Your task to perform on an android device: Open the phone app and click the voicemail tab. Image 0: 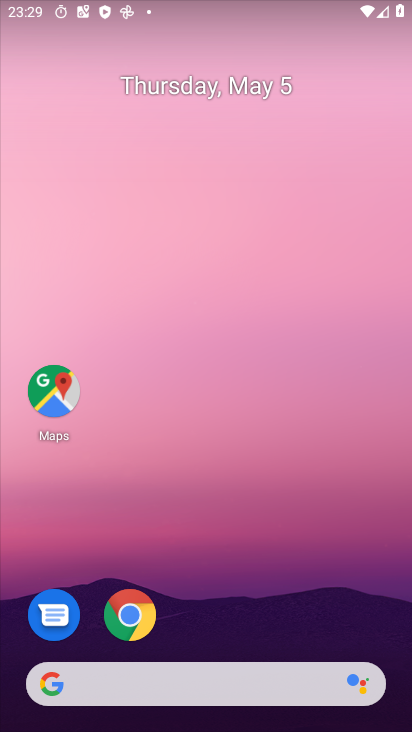
Step 0: drag from (218, 614) to (183, 153)
Your task to perform on an android device: Open the phone app and click the voicemail tab. Image 1: 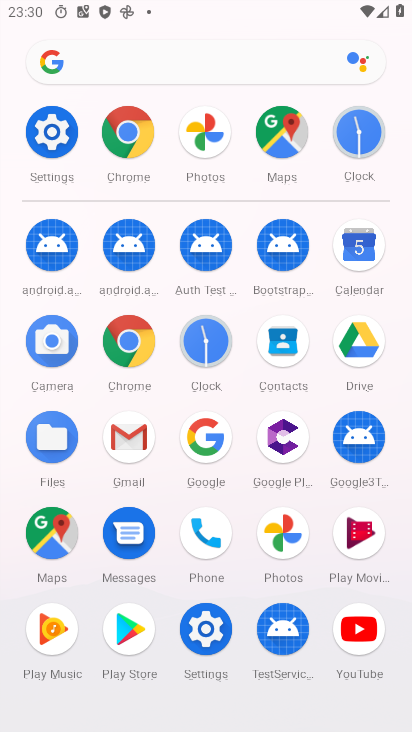
Step 1: click (208, 532)
Your task to perform on an android device: Open the phone app and click the voicemail tab. Image 2: 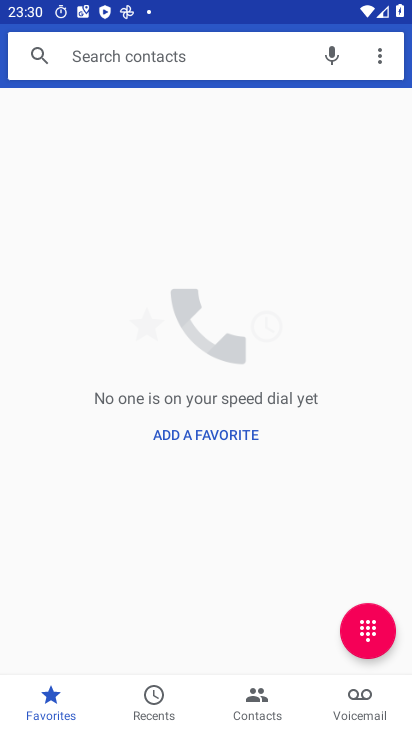
Step 2: click (361, 701)
Your task to perform on an android device: Open the phone app and click the voicemail tab. Image 3: 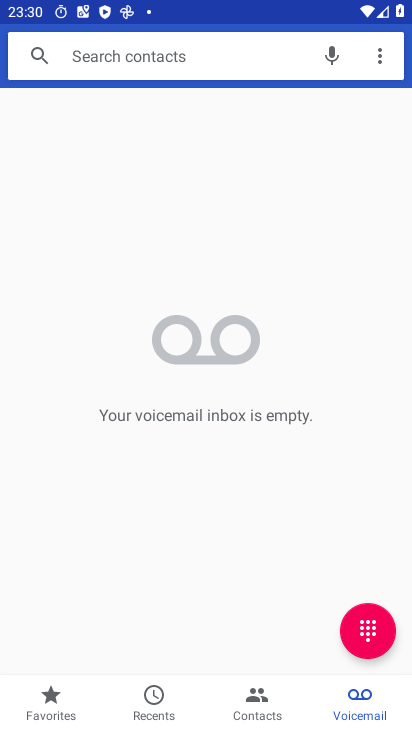
Step 3: task complete